Your task to perform on an android device: Open Amazon Image 0: 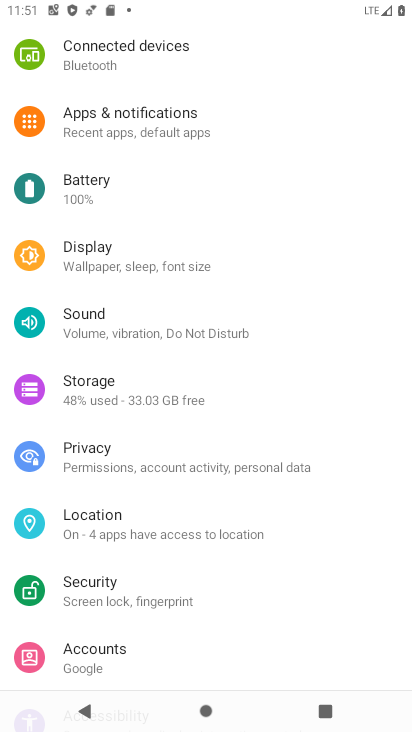
Step 0: press home button
Your task to perform on an android device: Open Amazon Image 1: 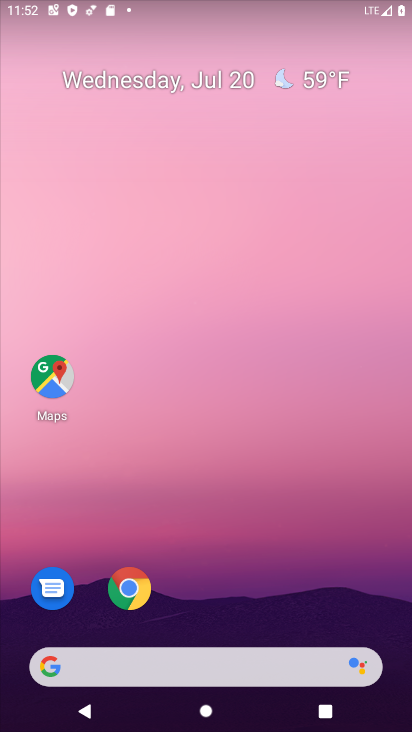
Step 1: drag from (232, 155) to (224, 37)
Your task to perform on an android device: Open Amazon Image 2: 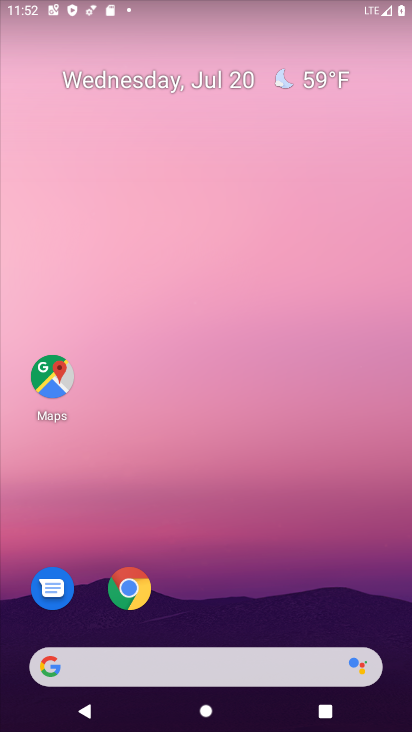
Step 2: drag from (258, 539) to (194, 0)
Your task to perform on an android device: Open Amazon Image 3: 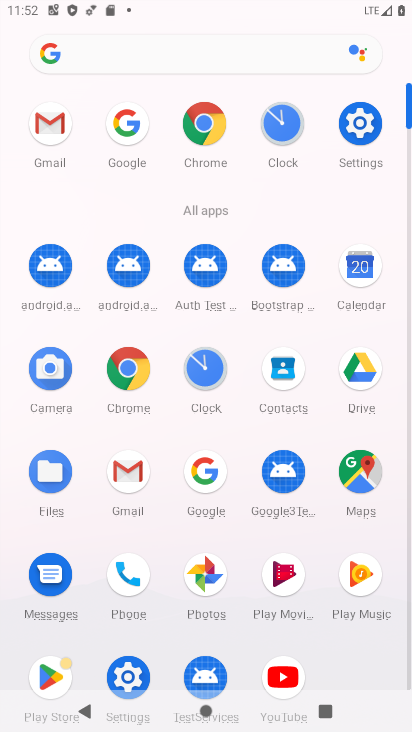
Step 3: click (208, 120)
Your task to perform on an android device: Open Amazon Image 4: 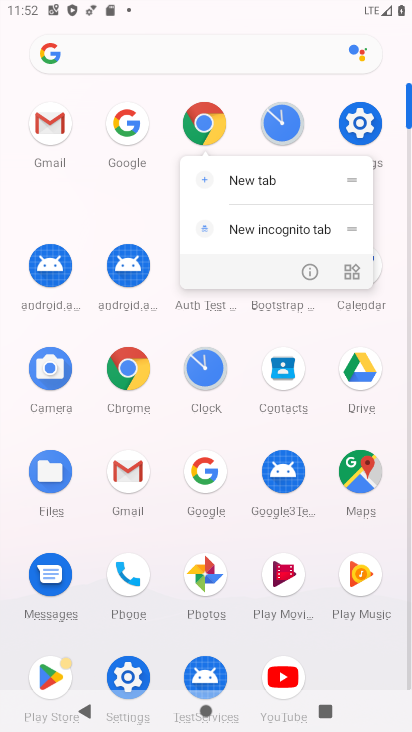
Step 4: click (211, 120)
Your task to perform on an android device: Open Amazon Image 5: 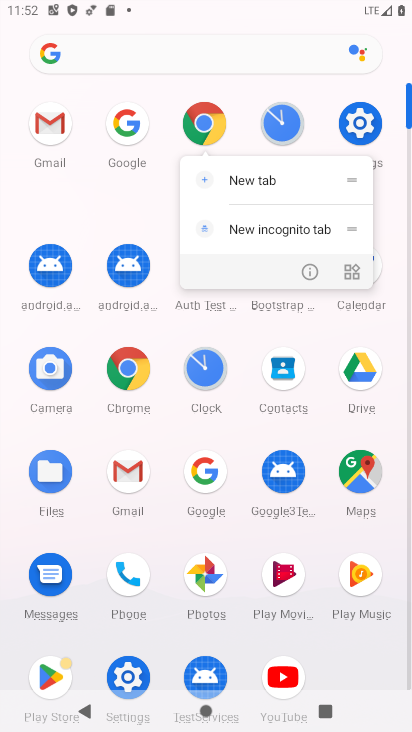
Step 5: click (210, 119)
Your task to perform on an android device: Open Amazon Image 6: 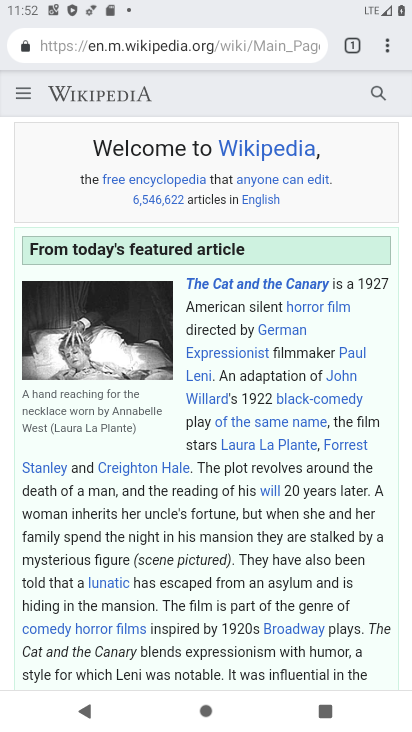
Step 6: press back button
Your task to perform on an android device: Open Amazon Image 7: 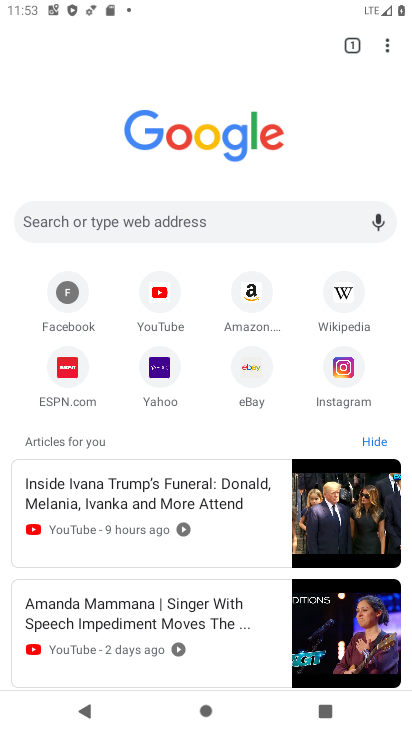
Step 7: click (256, 291)
Your task to perform on an android device: Open Amazon Image 8: 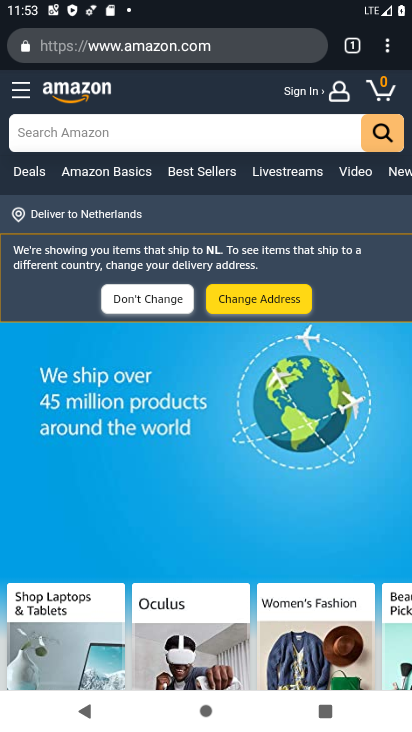
Step 8: task complete